Your task to perform on an android device: refresh tabs in the chrome app Image 0: 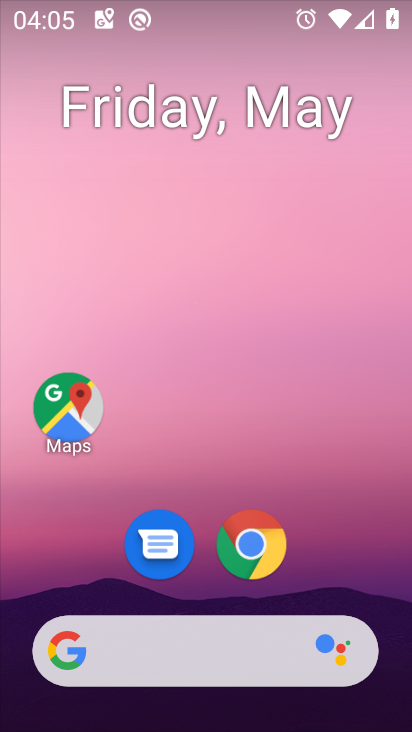
Step 0: drag from (300, 650) to (132, 16)
Your task to perform on an android device: refresh tabs in the chrome app Image 1: 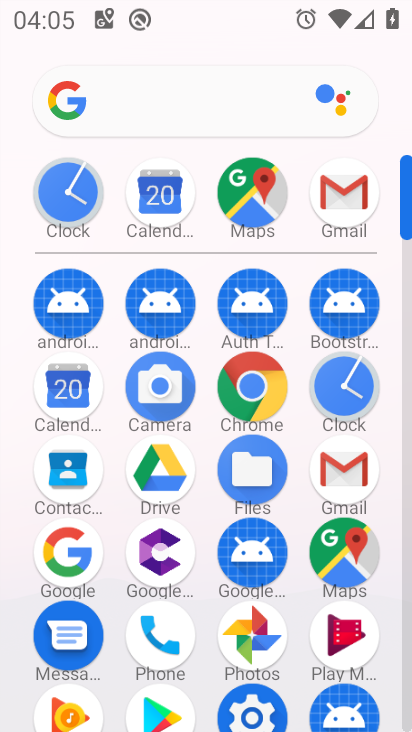
Step 1: click (247, 382)
Your task to perform on an android device: refresh tabs in the chrome app Image 2: 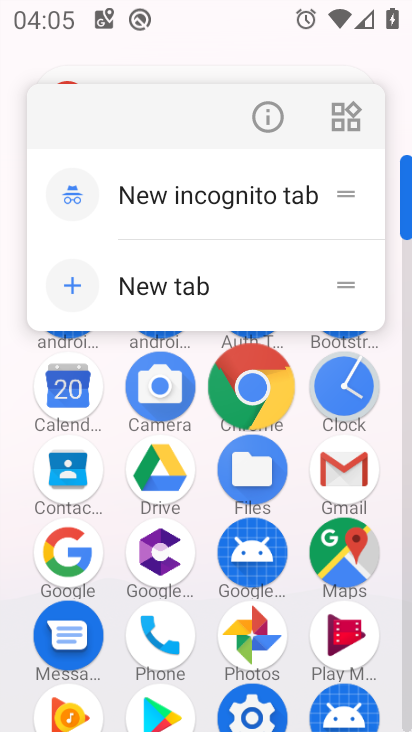
Step 2: click (250, 378)
Your task to perform on an android device: refresh tabs in the chrome app Image 3: 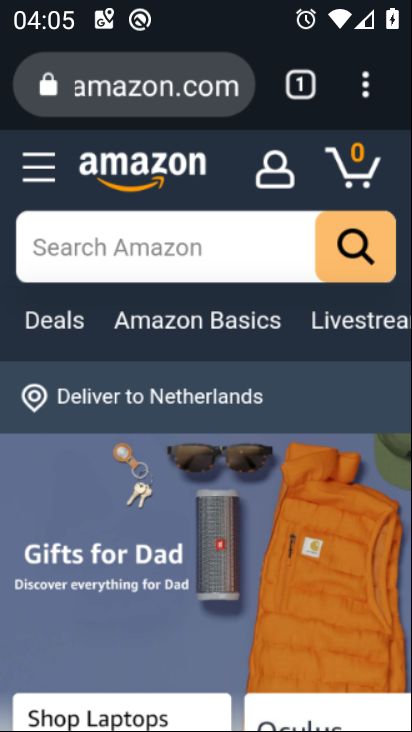
Step 3: click (262, 386)
Your task to perform on an android device: refresh tabs in the chrome app Image 4: 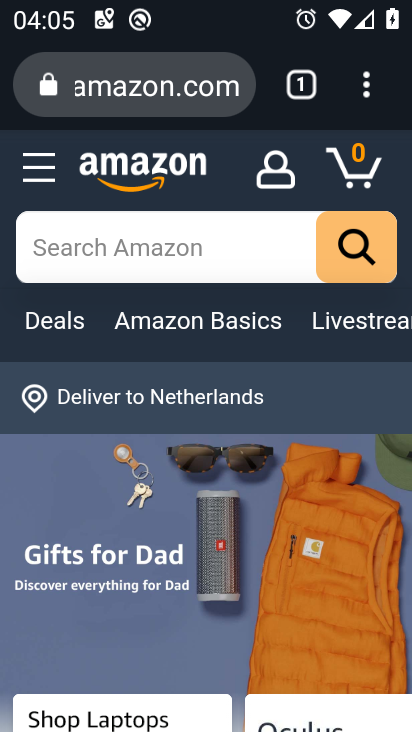
Step 4: click (362, 90)
Your task to perform on an android device: refresh tabs in the chrome app Image 5: 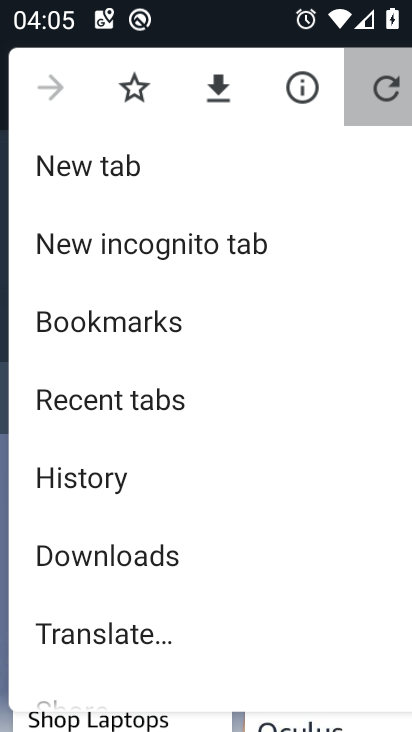
Step 5: click (380, 85)
Your task to perform on an android device: refresh tabs in the chrome app Image 6: 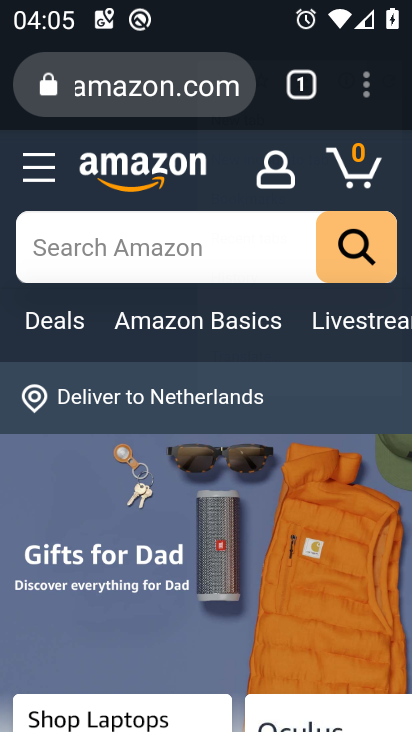
Step 6: click (380, 85)
Your task to perform on an android device: refresh tabs in the chrome app Image 7: 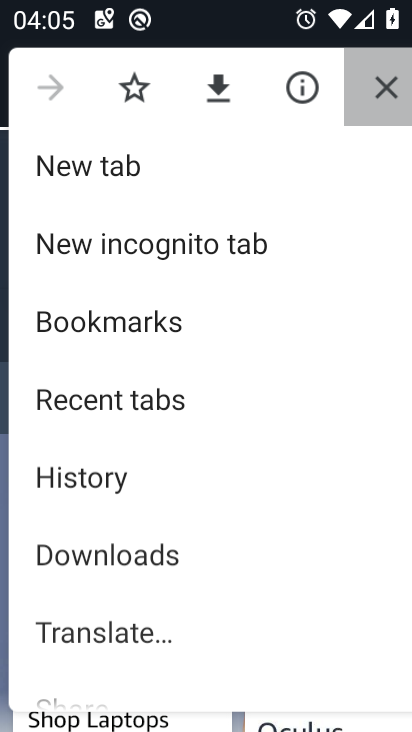
Step 7: click (381, 86)
Your task to perform on an android device: refresh tabs in the chrome app Image 8: 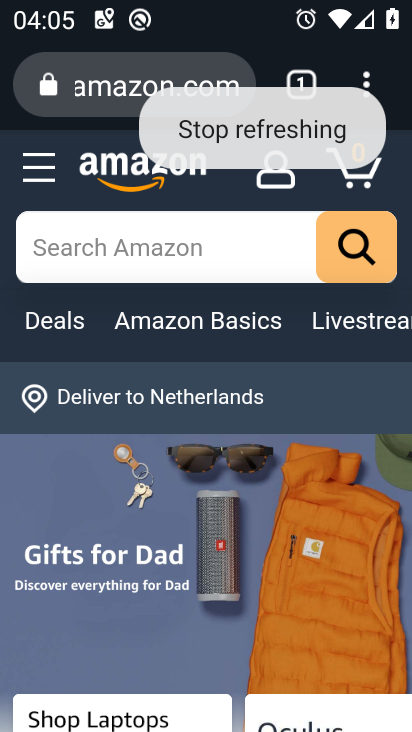
Step 8: click (405, 72)
Your task to perform on an android device: refresh tabs in the chrome app Image 9: 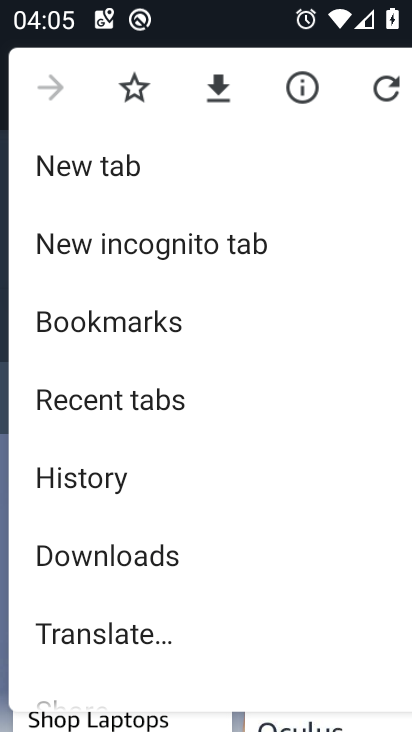
Step 9: task complete